Your task to perform on an android device: see sites visited before in the chrome app Image 0: 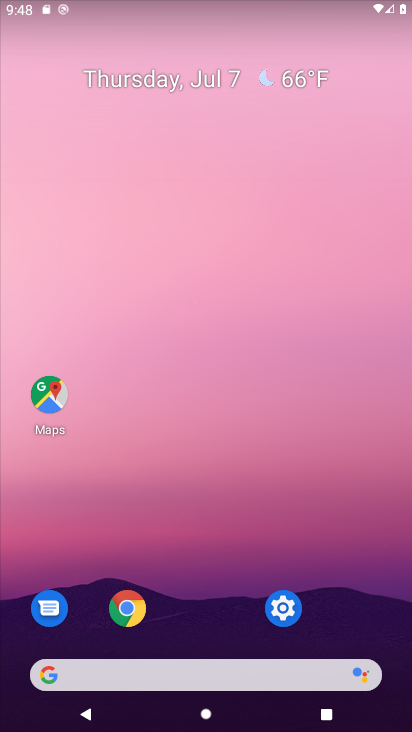
Step 0: click (132, 604)
Your task to perform on an android device: see sites visited before in the chrome app Image 1: 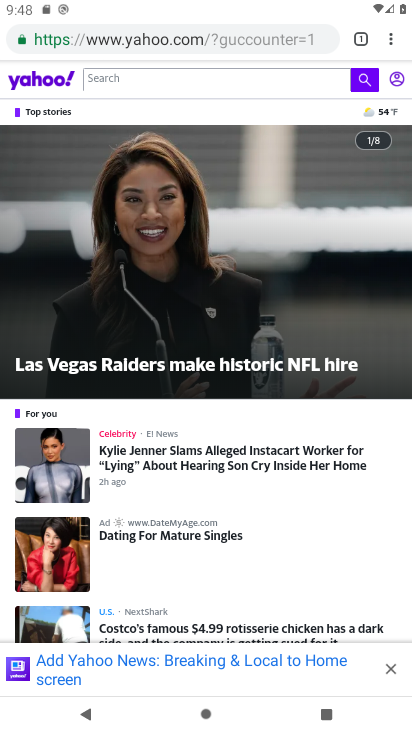
Step 1: click (391, 43)
Your task to perform on an android device: see sites visited before in the chrome app Image 2: 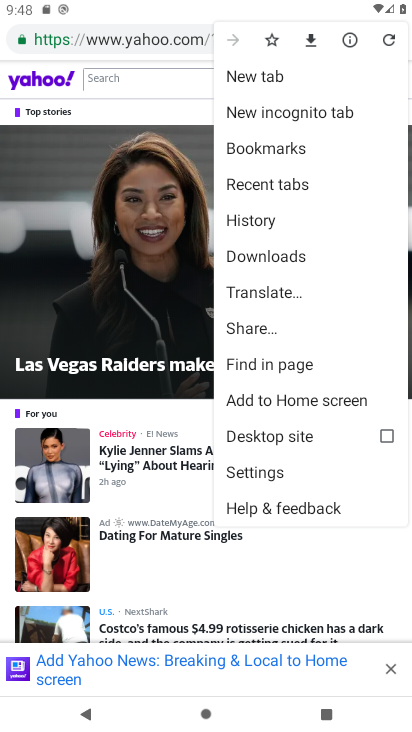
Step 2: click (270, 466)
Your task to perform on an android device: see sites visited before in the chrome app Image 3: 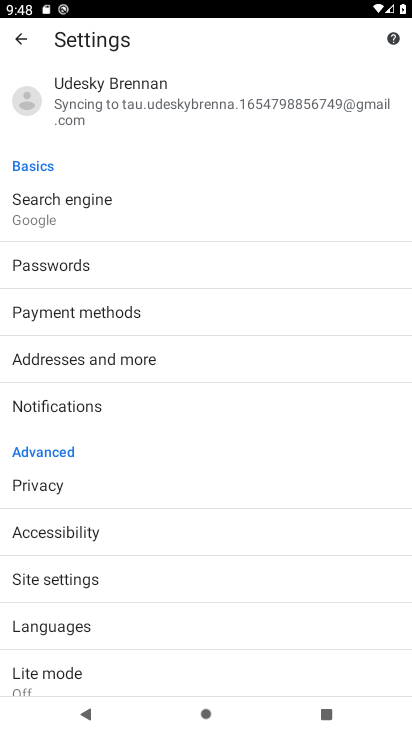
Step 3: click (96, 569)
Your task to perform on an android device: see sites visited before in the chrome app Image 4: 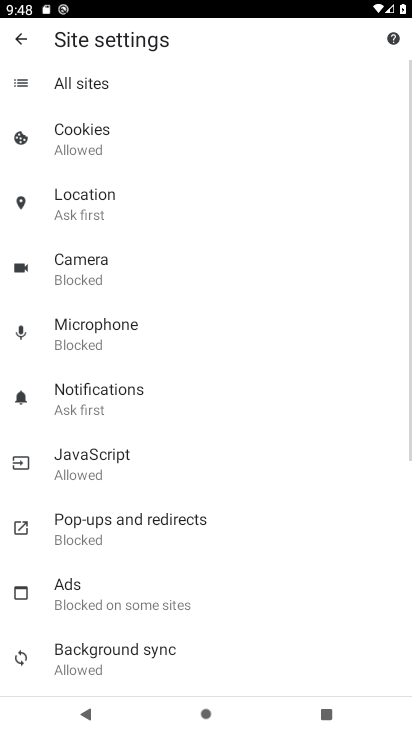
Step 4: click (122, 86)
Your task to perform on an android device: see sites visited before in the chrome app Image 5: 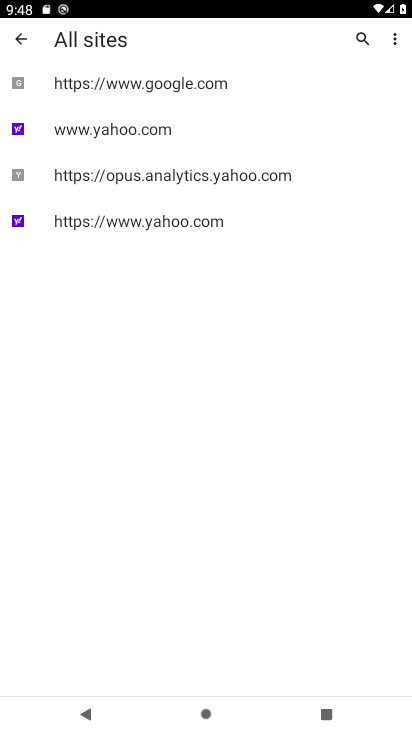
Step 5: click (121, 183)
Your task to perform on an android device: see sites visited before in the chrome app Image 6: 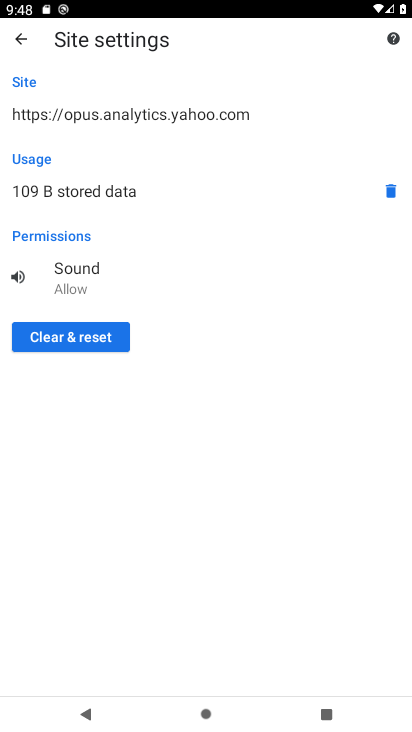
Step 6: click (132, 108)
Your task to perform on an android device: see sites visited before in the chrome app Image 7: 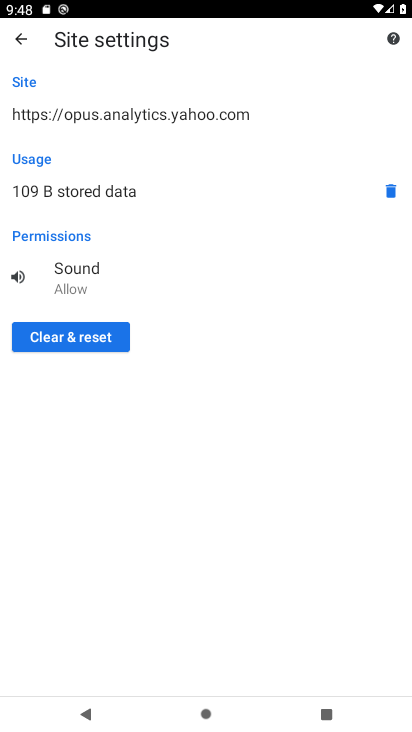
Step 7: task complete